Your task to perform on an android device: change notifications settings Image 0: 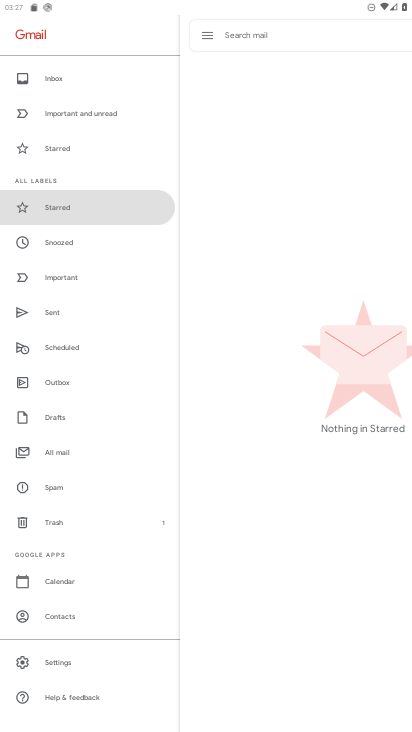
Step 0: press home button
Your task to perform on an android device: change notifications settings Image 1: 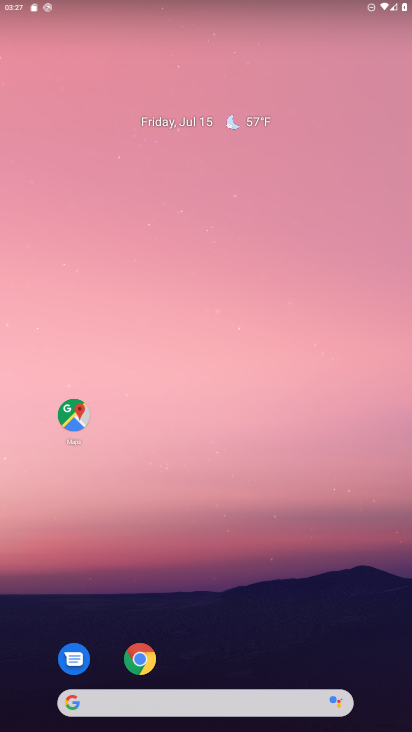
Step 1: drag from (231, 663) to (358, 67)
Your task to perform on an android device: change notifications settings Image 2: 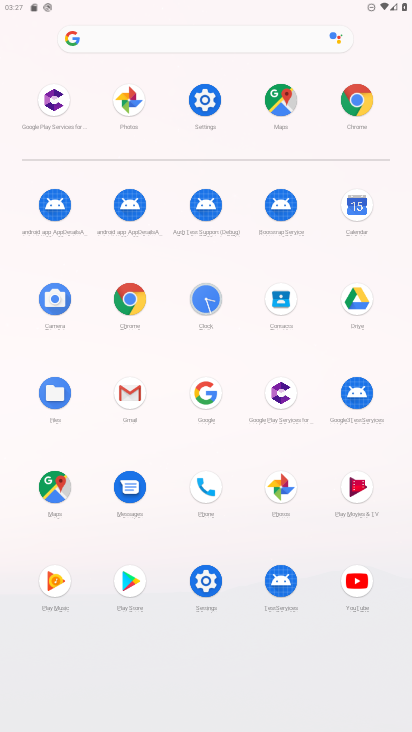
Step 2: click (196, 588)
Your task to perform on an android device: change notifications settings Image 3: 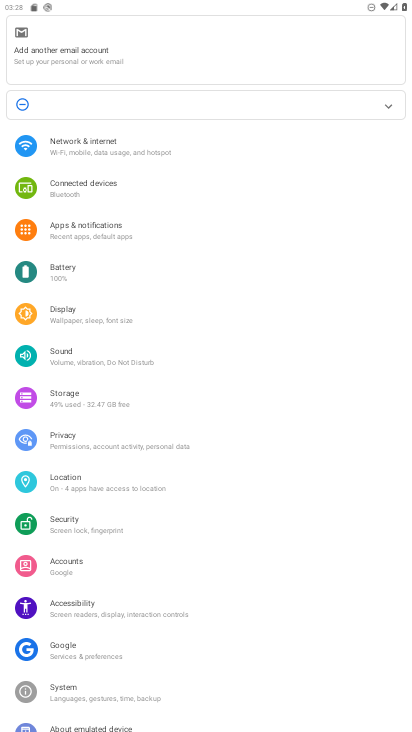
Step 3: click (109, 235)
Your task to perform on an android device: change notifications settings Image 4: 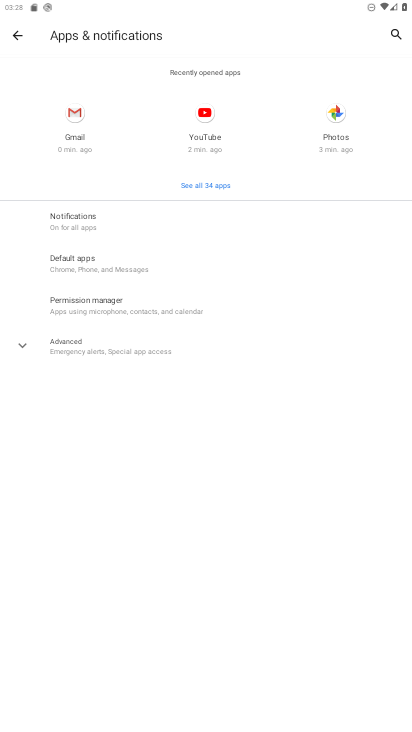
Step 4: click (104, 222)
Your task to perform on an android device: change notifications settings Image 5: 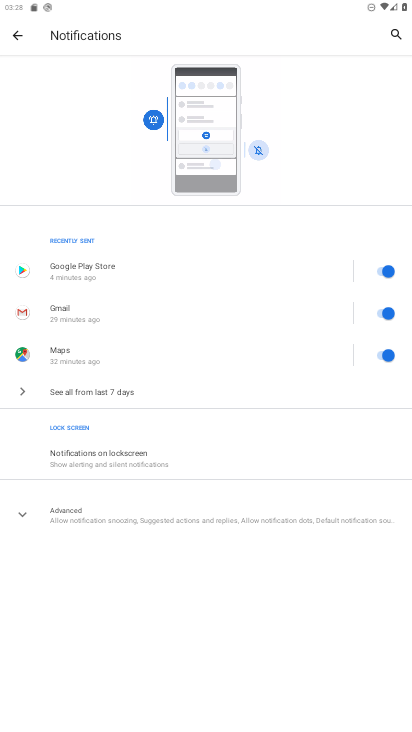
Step 5: click (125, 396)
Your task to perform on an android device: change notifications settings Image 6: 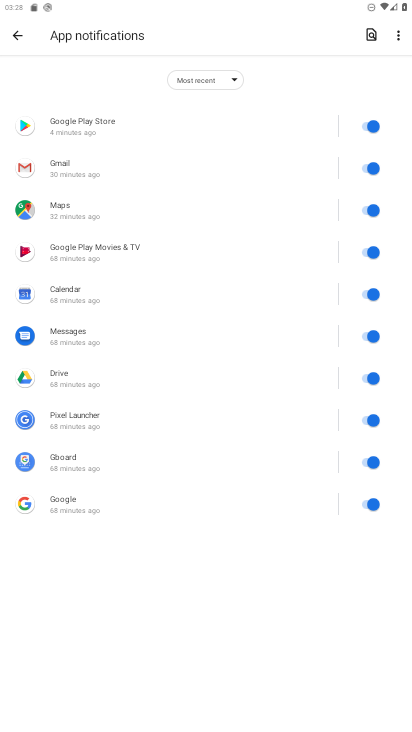
Step 6: click (353, 123)
Your task to perform on an android device: change notifications settings Image 7: 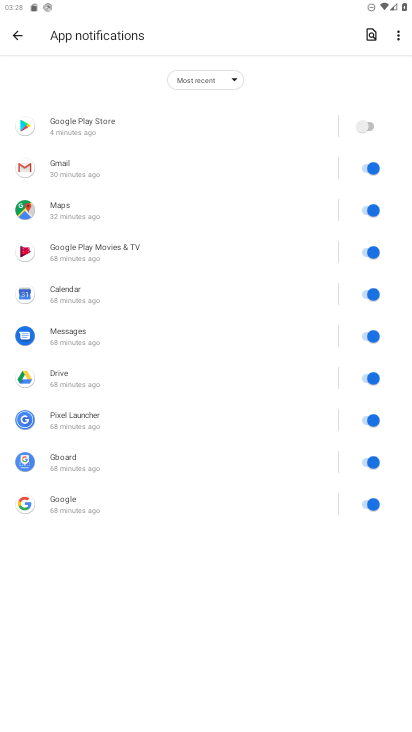
Step 7: click (355, 169)
Your task to perform on an android device: change notifications settings Image 8: 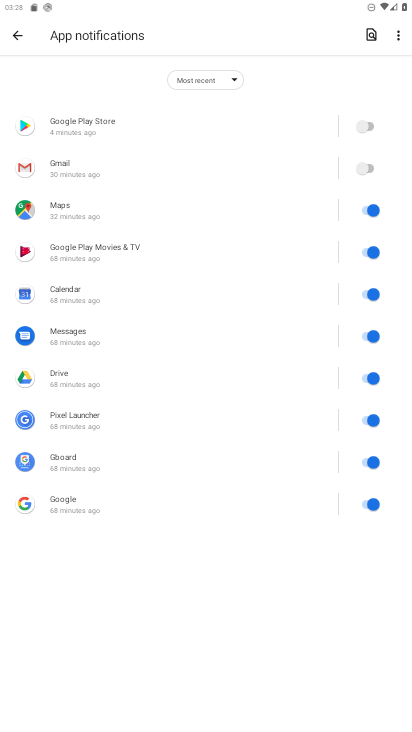
Step 8: click (353, 213)
Your task to perform on an android device: change notifications settings Image 9: 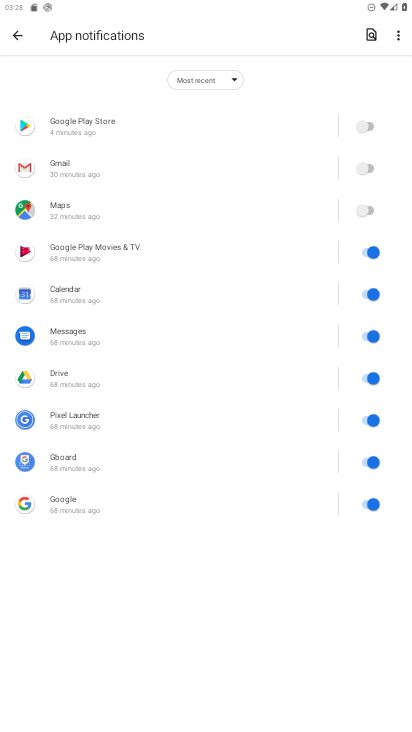
Step 9: click (358, 256)
Your task to perform on an android device: change notifications settings Image 10: 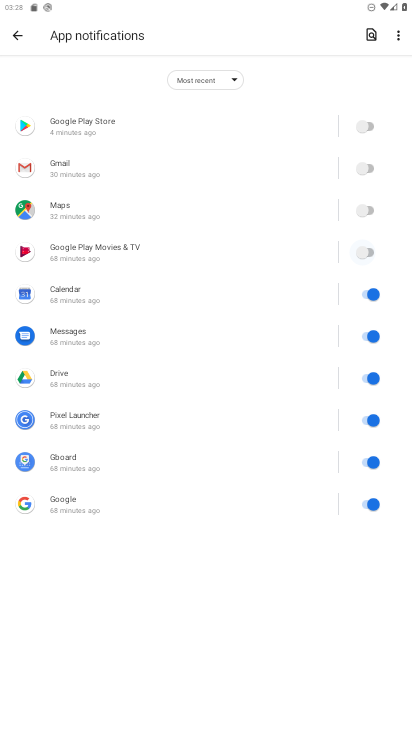
Step 10: click (361, 294)
Your task to perform on an android device: change notifications settings Image 11: 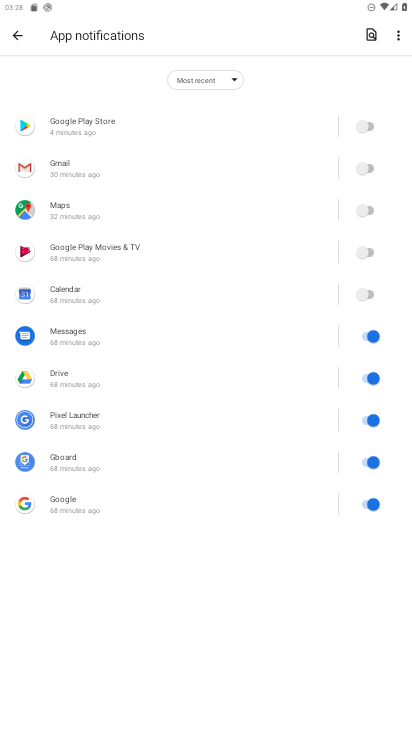
Step 11: click (364, 309)
Your task to perform on an android device: change notifications settings Image 12: 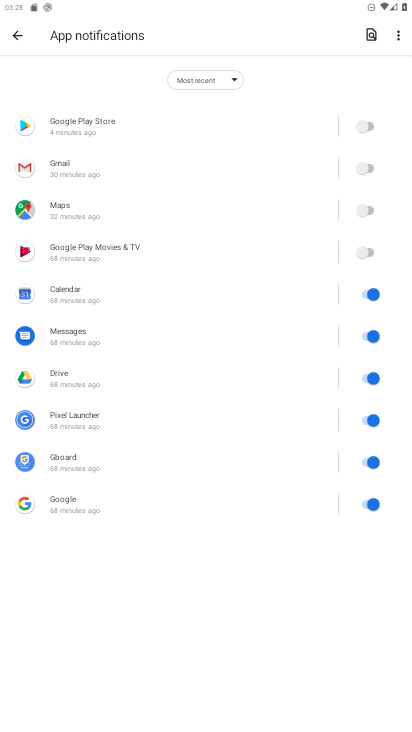
Step 12: click (370, 337)
Your task to perform on an android device: change notifications settings Image 13: 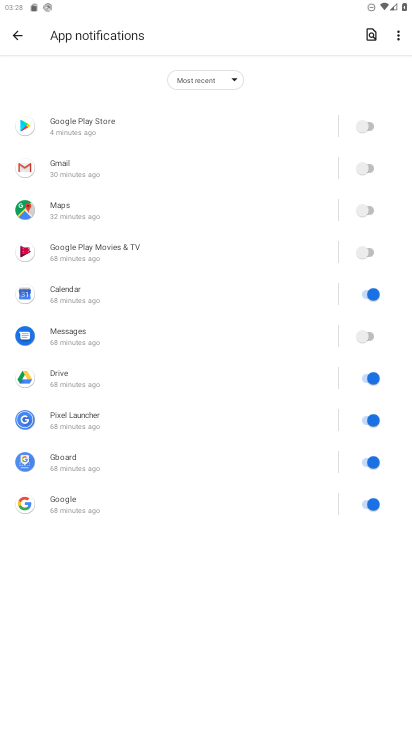
Step 13: click (362, 341)
Your task to perform on an android device: change notifications settings Image 14: 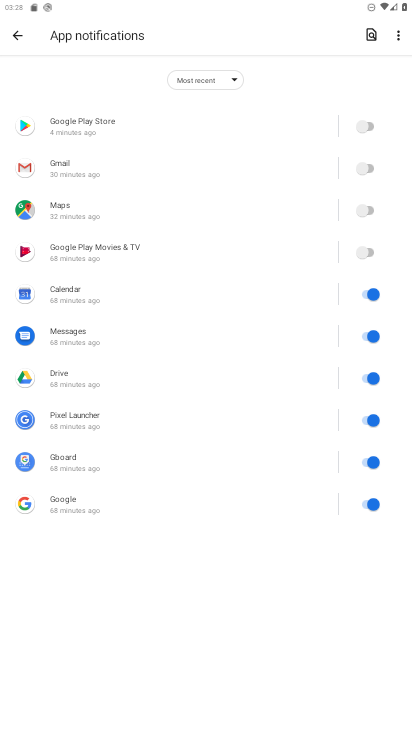
Step 14: click (362, 375)
Your task to perform on an android device: change notifications settings Image 15: 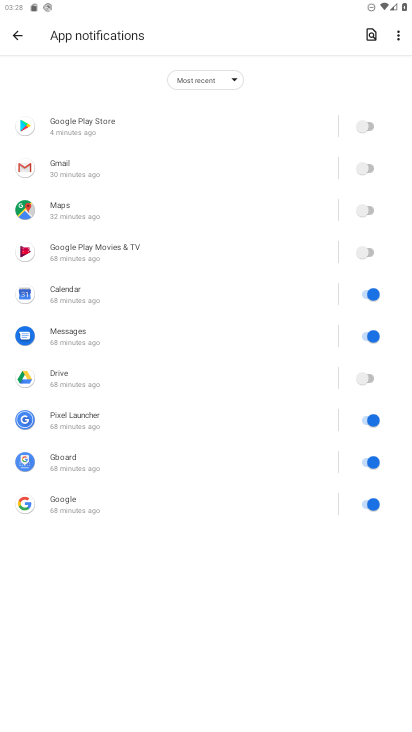
Step 15: click (353, 292)
Your task to perform on an android device: change notifications settings Image 16: 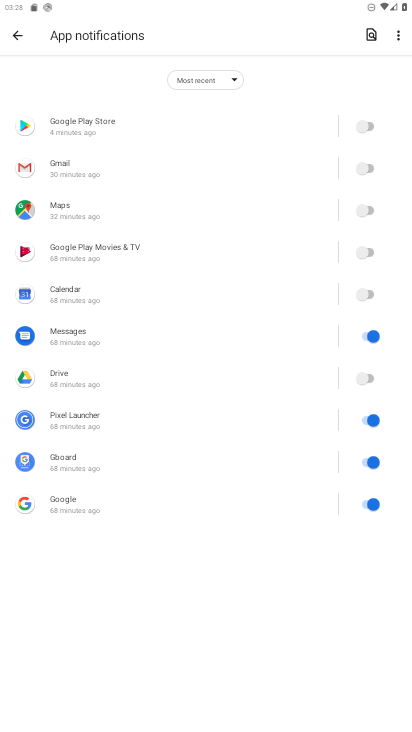
Step 16: click (358, 334)
Your task to perform on an android device: change notifications settings Image 17: 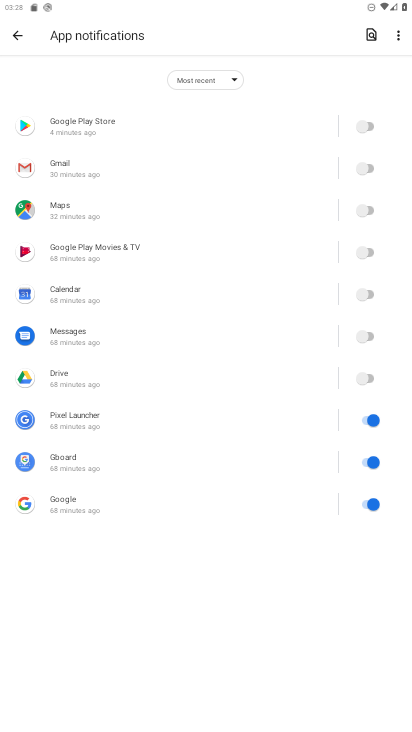
Step 17: click (360, 429)
Your task to perform on an android device: change notifications settings Image 18: 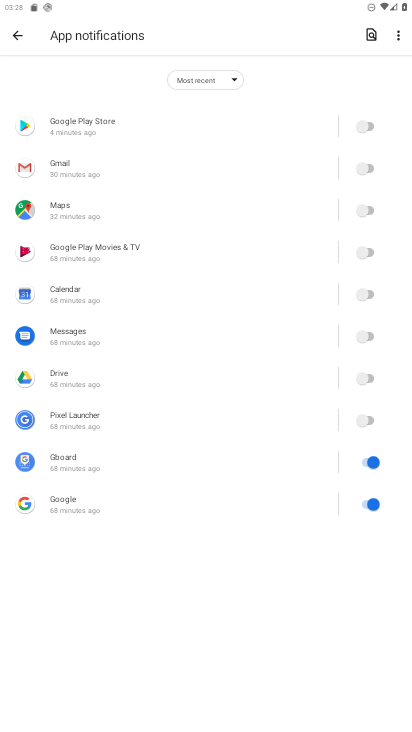
Step 18: click (350, 460)
Your task to perform on an android device: change notifications settings Image 19: 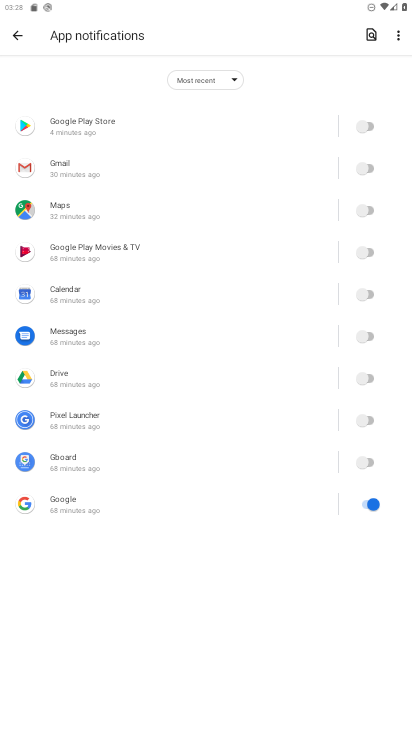
Step 19: click (353, 512)
Your task to perform on an android device: change notifications settings Image 20: 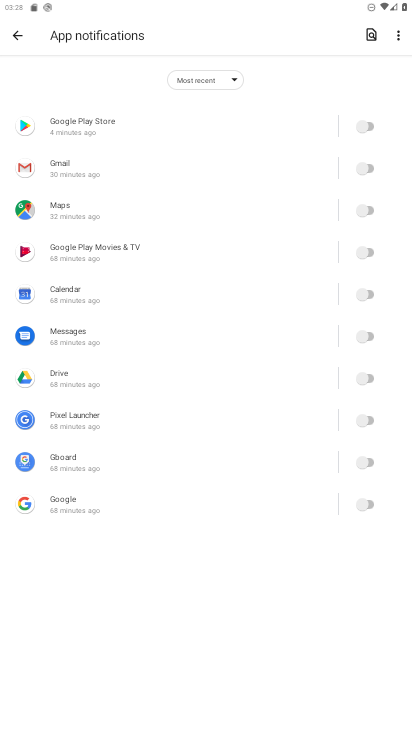
Step 20: task complete